Your task to perform on an android device: Go to wifi settings Image 0: 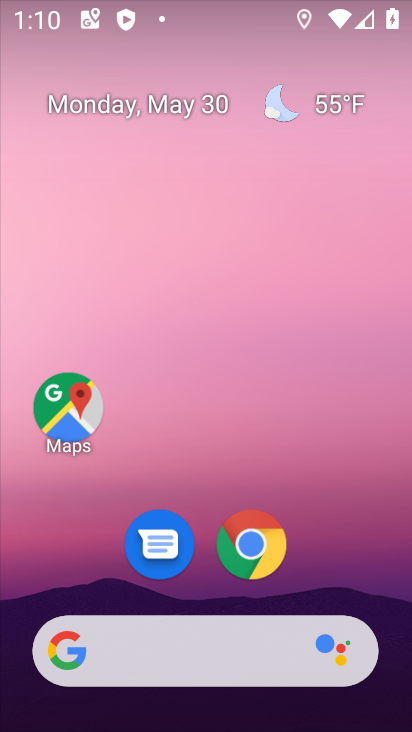
Step 0: drag from (262, 11) to (197, 516)
Your task to perform on an android device: Go to wifi settings Image 1: 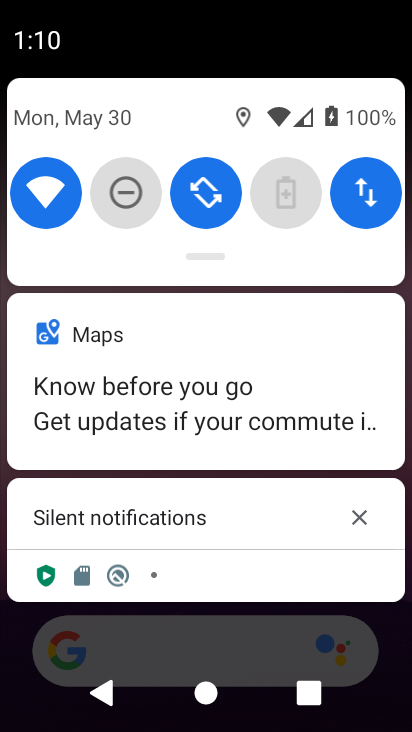
Step 1: click (52, 189)
Your task to perform on an android device: Go to wifi settings Image 2: 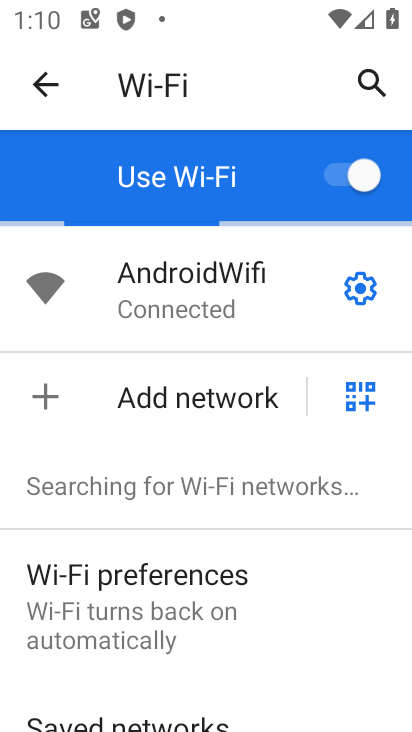
Step 2: task complete